Your task to perform on an android device: turn off notifications in google photos Image 0: 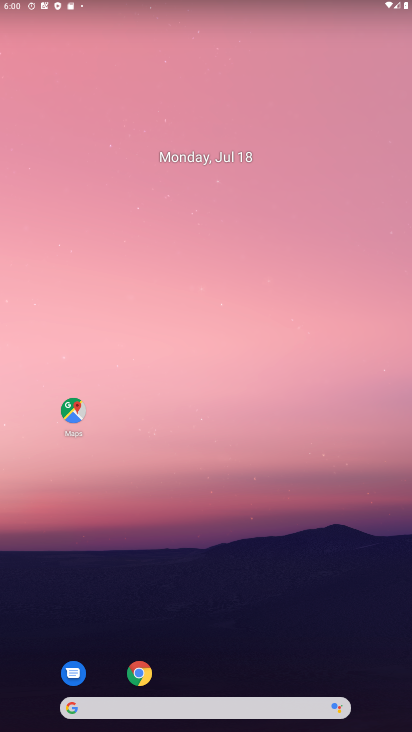
Step 0: drag from (280, 613) to (232, 298)
Your task to perform on an android device: turn off notifications in google photos Image 1: 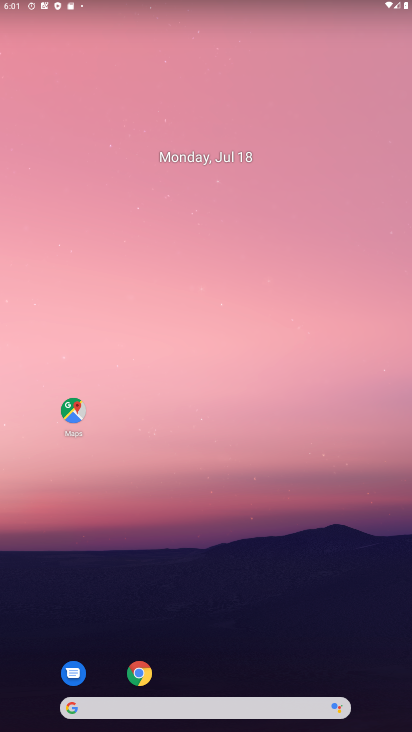
Step 1: drag from (251, 608) to (337, 187)
Your task to perform on an android device: turn off notifications in google photos Image 2: 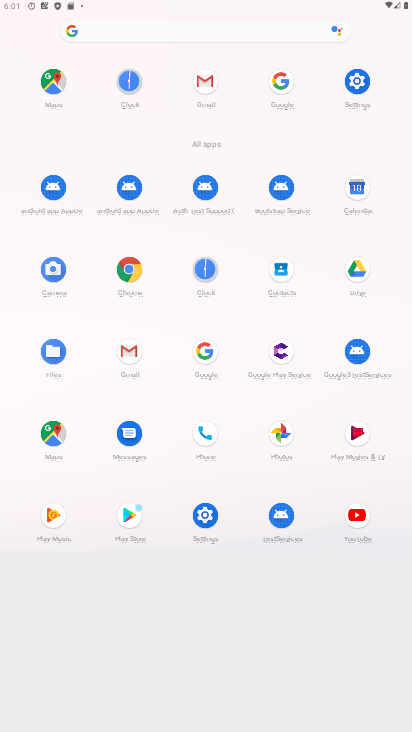
Step 2: click (201, 513)
Your task to perform on an android device: turn off notifications in google photos Image 3: 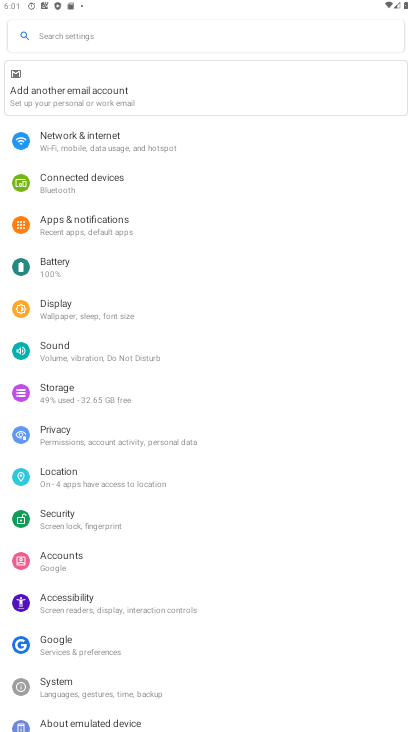
Step 3: click (104, 224)
Your task to perform on an android device: turn off notifications in google photos Image 4: 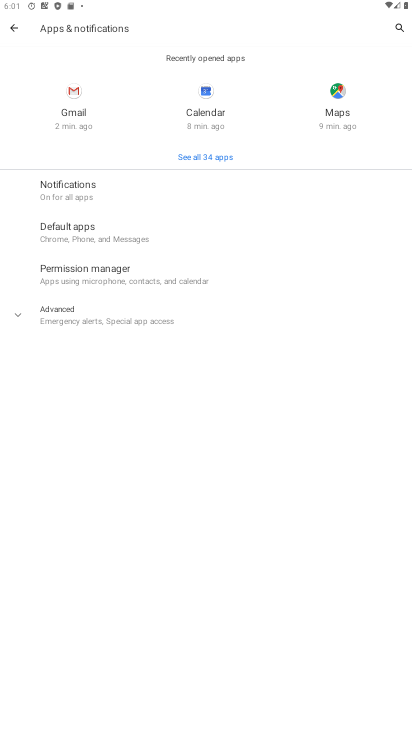
Step 4: click (83, 189)
Your task to perform on an android device: turn off notifications in google photos Image 5: 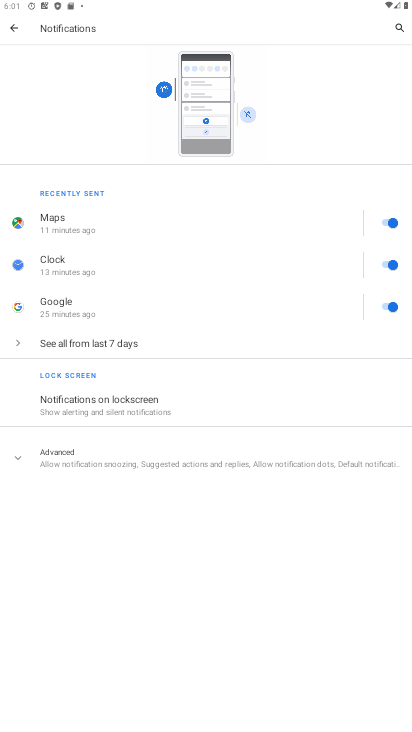
Step 5: click (16, 29)
Your task to perform on an android device: turn off notifications in google photos Image 6: 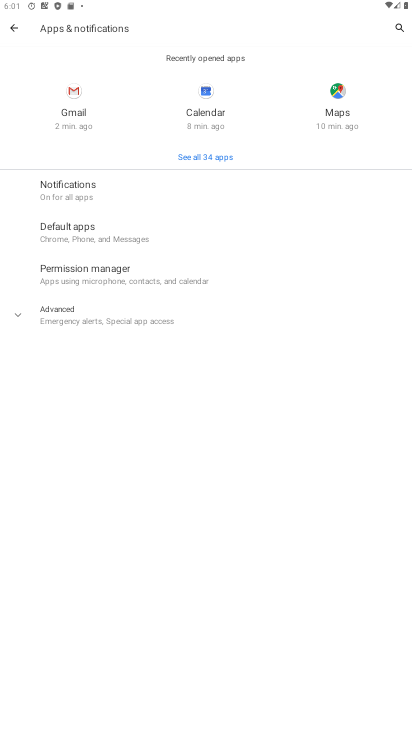
Step 6: click (205, 153)
Your task to perform on an android device: turn off notifications in google photos Image 7: 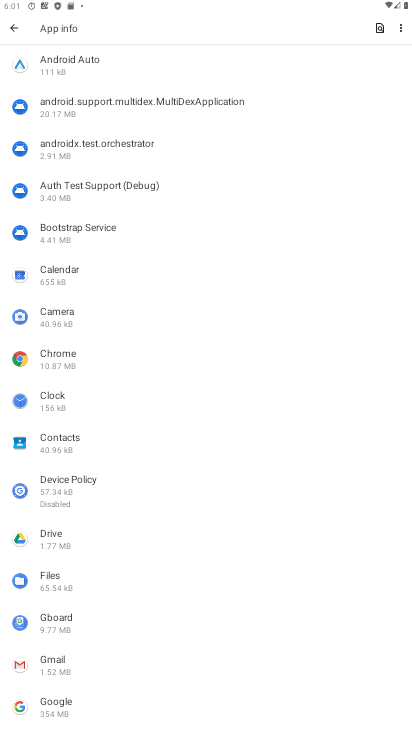
Step 7: drag from (147, 611) to (177, 263)
Your task to perform on an android device: turn off notifications in google photos Image 8: 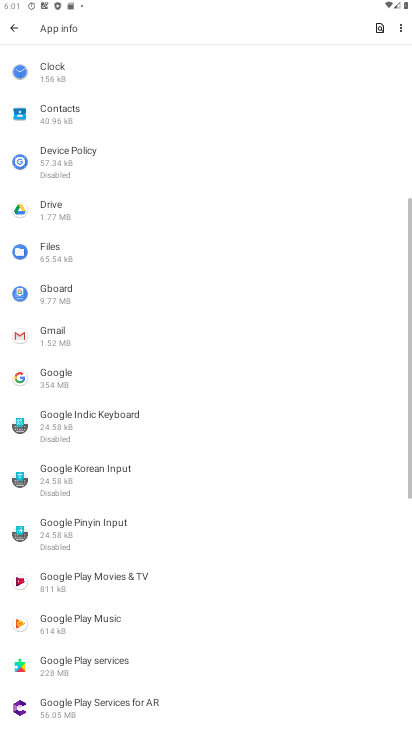
Step 8: drag from (155, 617) to (175, 233)
Your task to perform on an android device: turn off notifications in google photos Image 9: 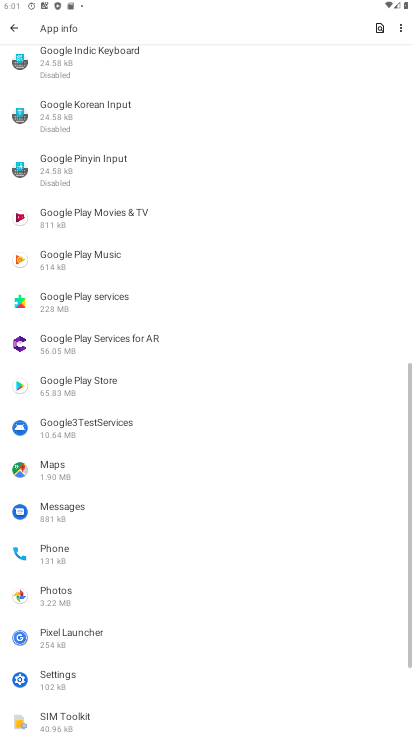
Step 9: drag from (148, 615) to (188, 233)
Your task to perform on an android device: turn off notifications in google photos Image 10: 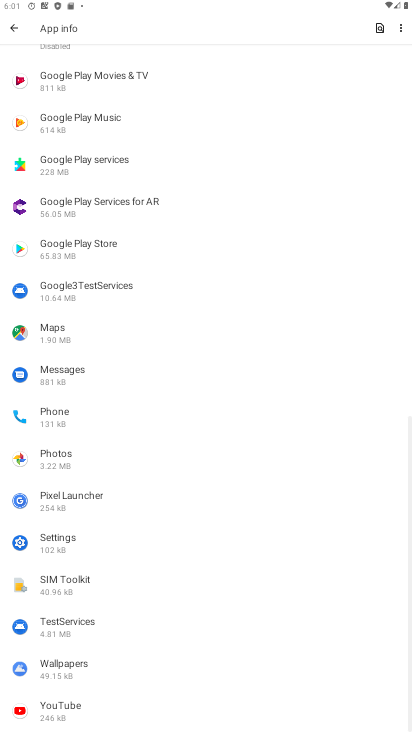
Step 10: click (66, 455)
Your task to perform on an android device: turn off notifications in google photos Image 11: 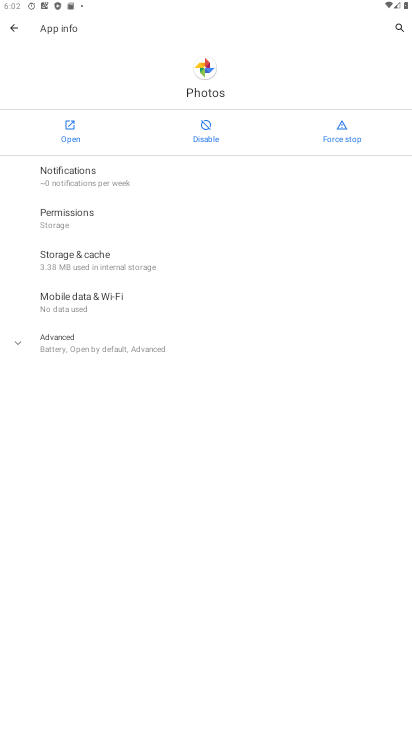
Step 11: task complete